Your task to perform on an android device: Open the web browser Image 0: 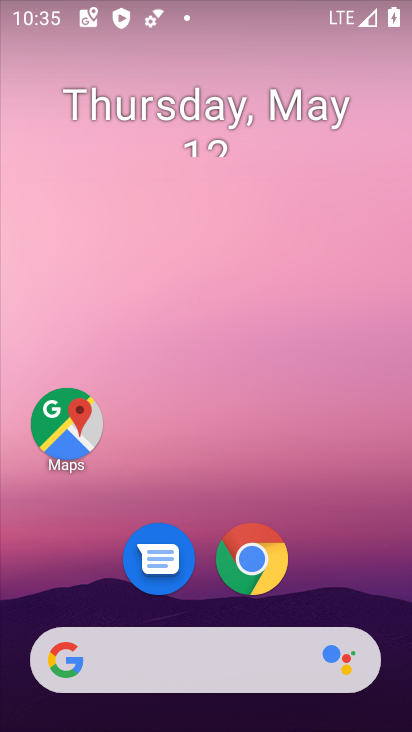
Step 0: click (248, 548)
Your task to perform on an android device: Open the web browser Image 1: 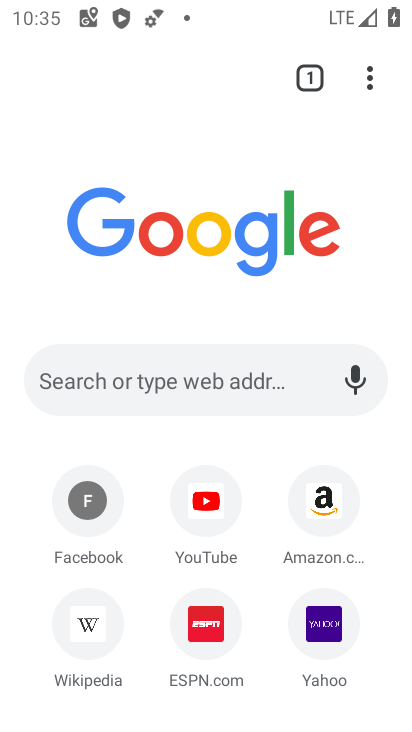
Step 1: task complete